Your task to perform on an android device: Open Android settings Image 0: 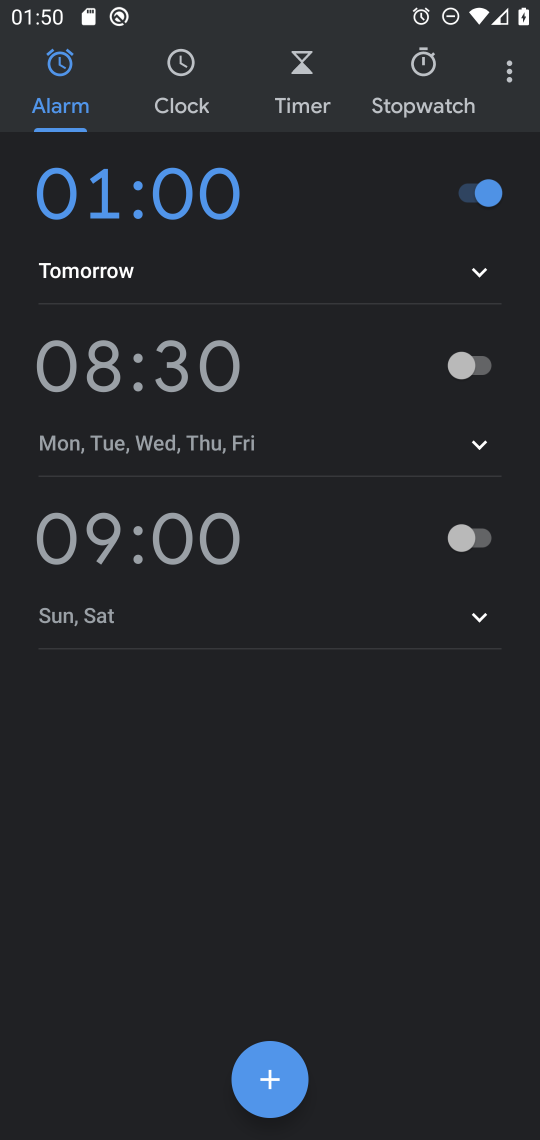
Step 0: press home button
Your task to perform on an android device: Open Android settings Image 1: 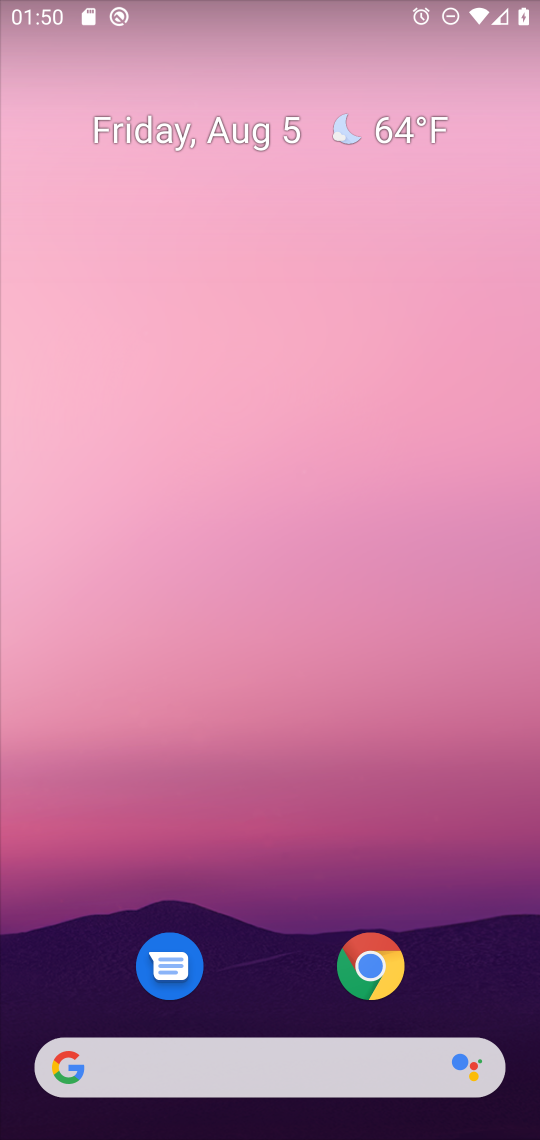
Step 1: drag from (297, 822) to (389, 56)
Your task to perform on an android device: Open Android settings Image 2: 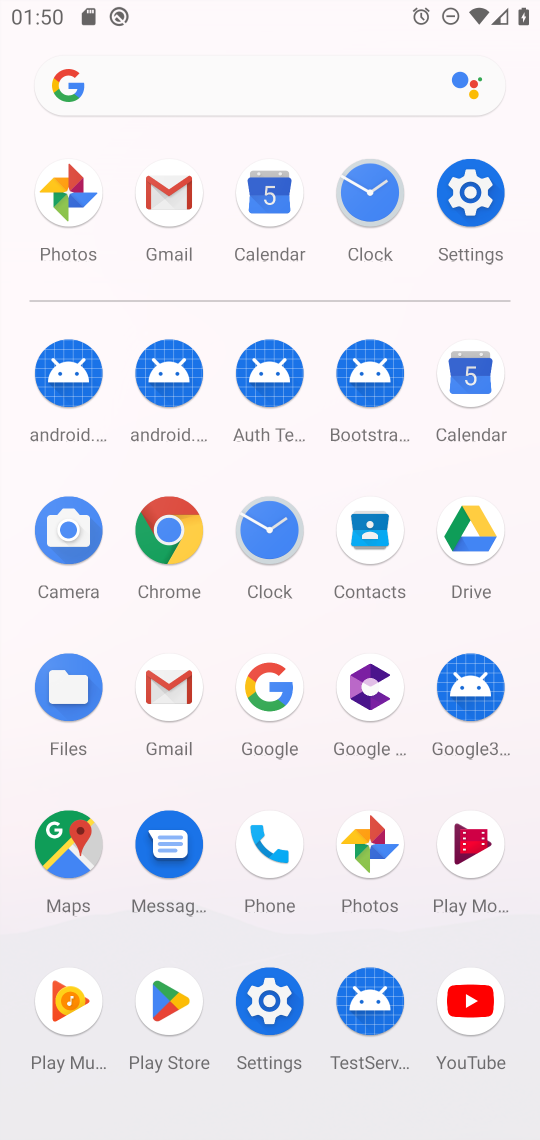
Step 2: click (462, 189)
Your task to perform on an android device: Open Android settings Image 3: 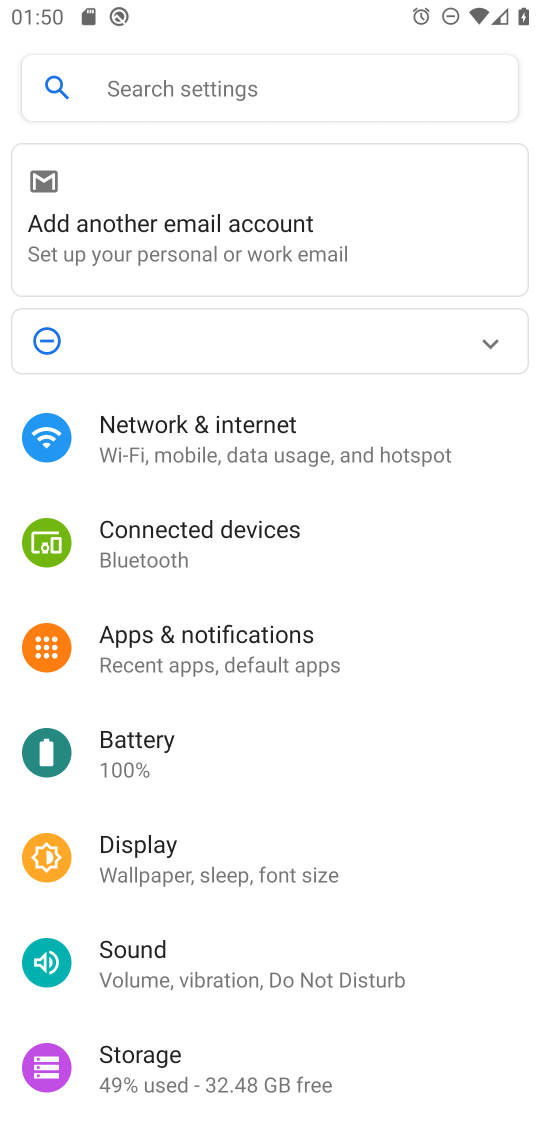
Step 3: drag from (296, 832) to (366, 96)
Your task to perform on an android device: Open Android settings Image 4: 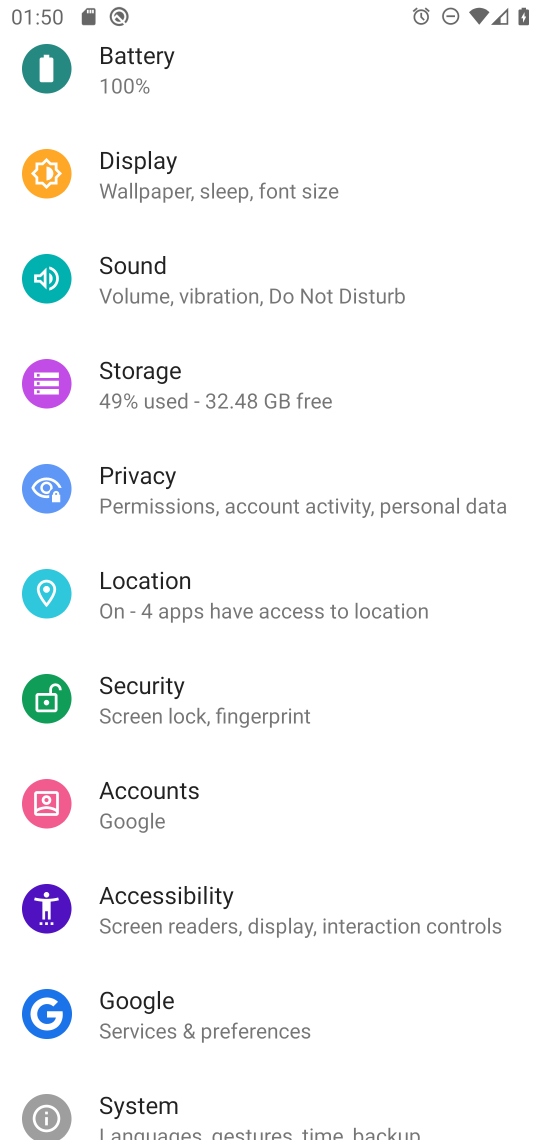
Step 4: drag from (264, 861) to (353, 144)
Your task to perform on an android device: Open Android settings Image 5: 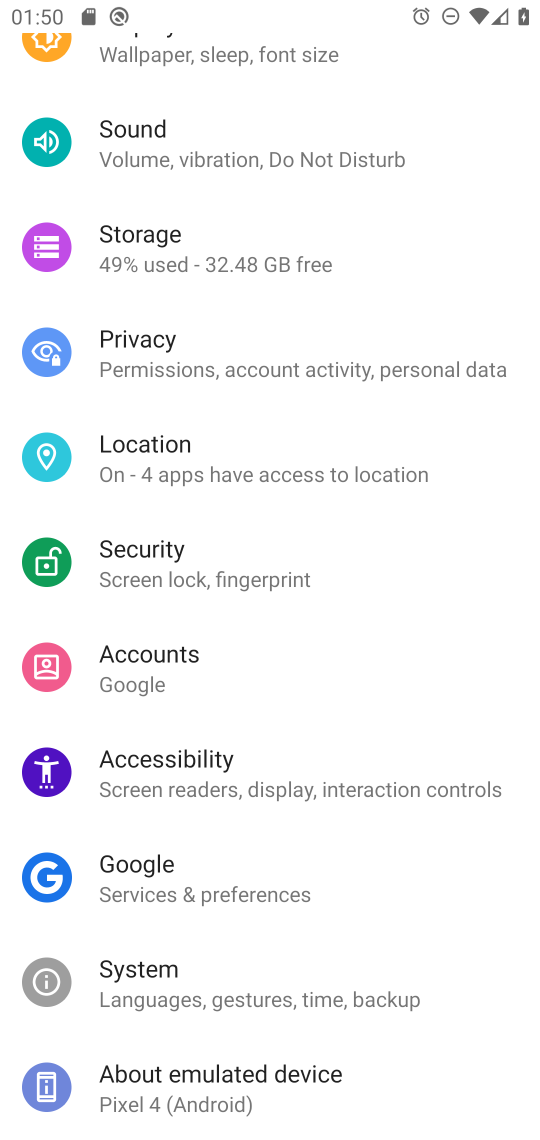
Step 5: click (244, 1073)
Your task to perform on an android device: Open Android settings Image 6: 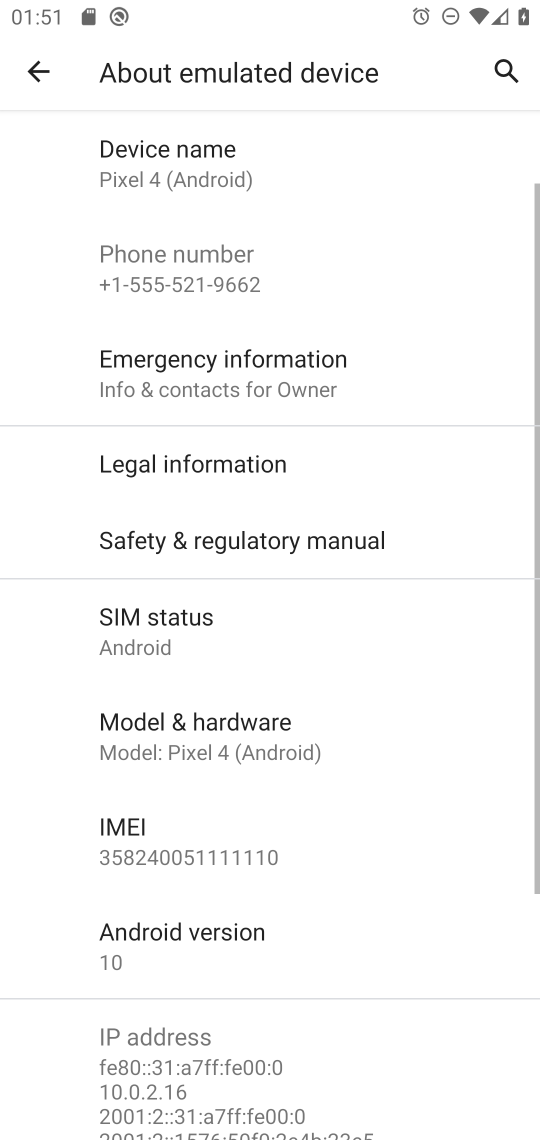
Step 6: task complete